Your task to perform on an android device: open the mobile data screen to see how much data has been used Image 0: 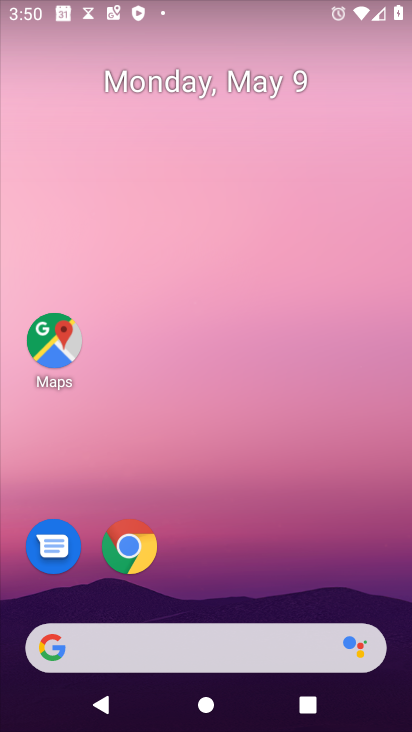
Step 0: drag from (292, 376) to (221, 75)
Your task to perform on an android device: open the mobile data screen to see how much data has been used Image 1: 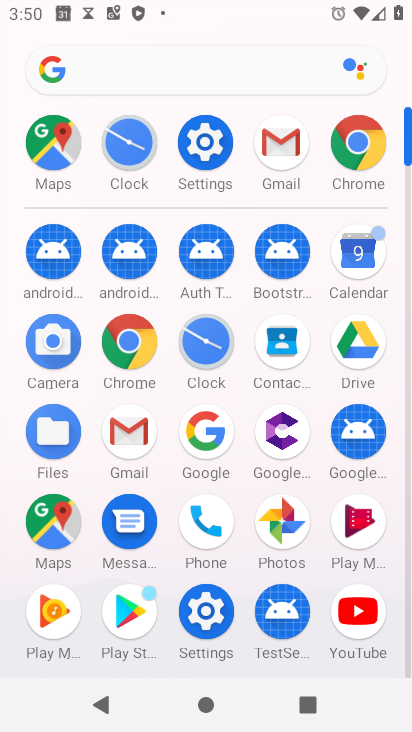
Step 1: click (193, 144)
Your task to perform on an android device: open the mobile data screen to see how much data has been used Image 2: 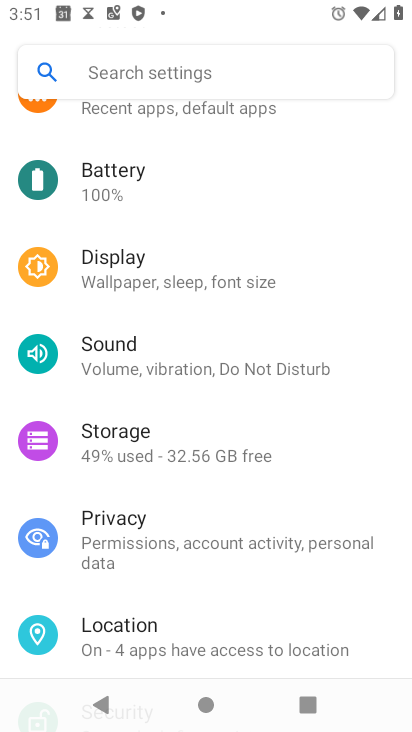
Step 2: drag from (176, 197) to (224, 578)
Your task to perform on an android device: open the mobile data screen to see how much data has been used Image 3: 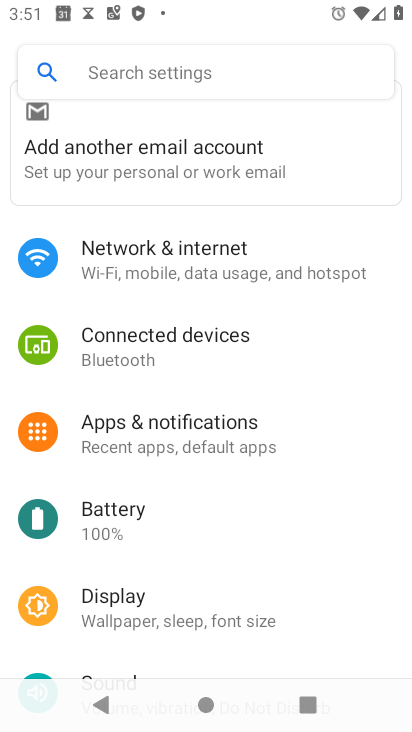
Step 3: click (171, 284)
Your task to perform on an android device: open the mobile data screen to see how much data has been used Image 4: 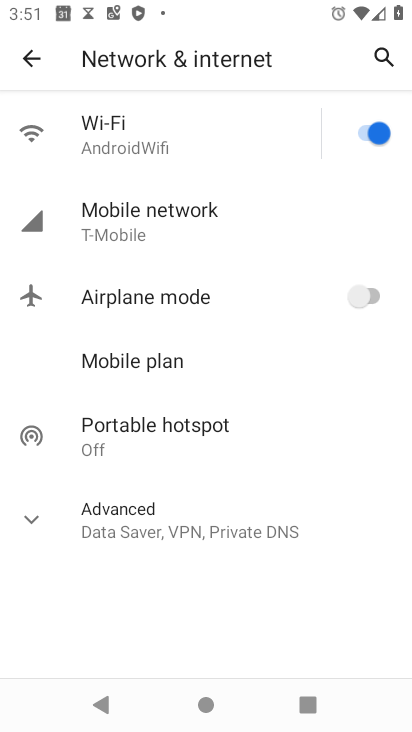
Step 4: click (137, 236)
Your task to perform on an android device: open the mobile data screen to see how much data has been used Image 5: 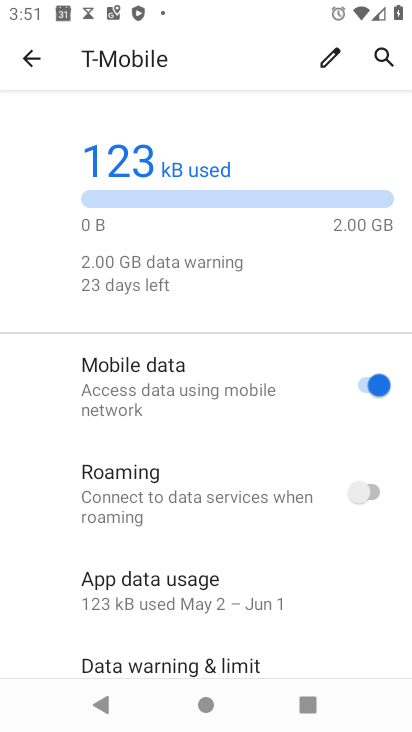
Step 5: task complete